Your task to perform on an android device: turn on javascript in the chrome app Image 0: 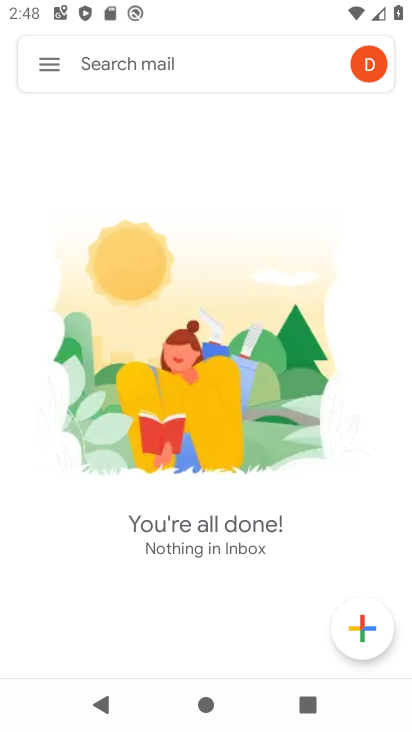
Step 0: press back button
Your task to perform on an android device: turn on javascript in the chrome app Image 1: 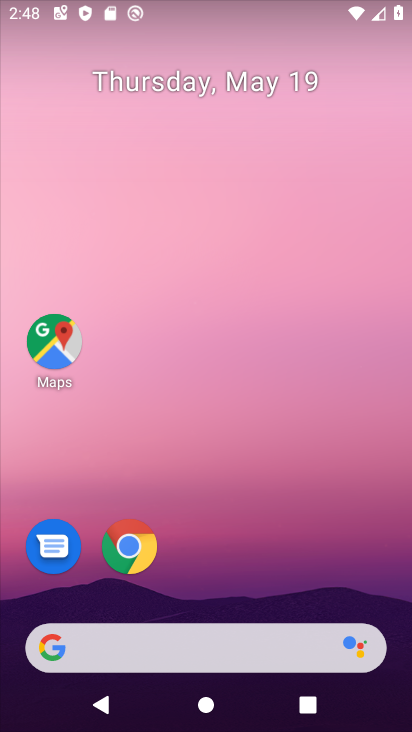
Step 1: click (129, 544)
Your task to perform on an android device: turn on javascript in the chrome app Image 2: 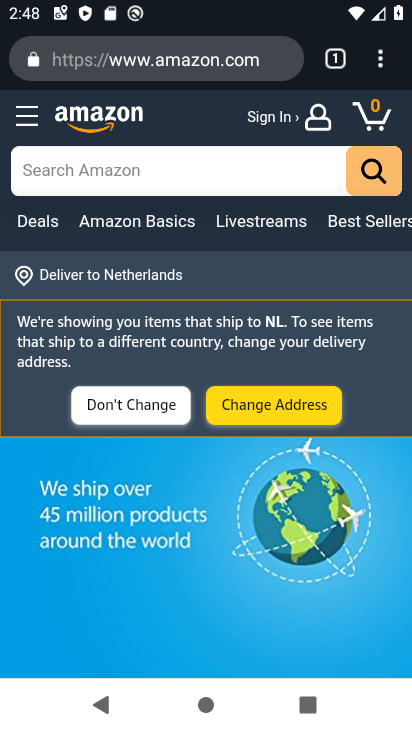
Step 2: click (383, 60)
Your task to perform on an android device: turn on javascript in the chrome app Image 3: 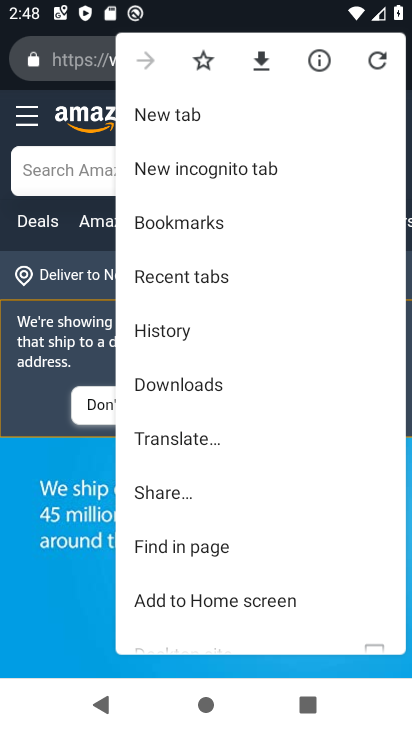
Step 3: drag from (209, 466) to (252, 399)
Your task to perform on an android device: turn on javascript in the chrome app Image 4: 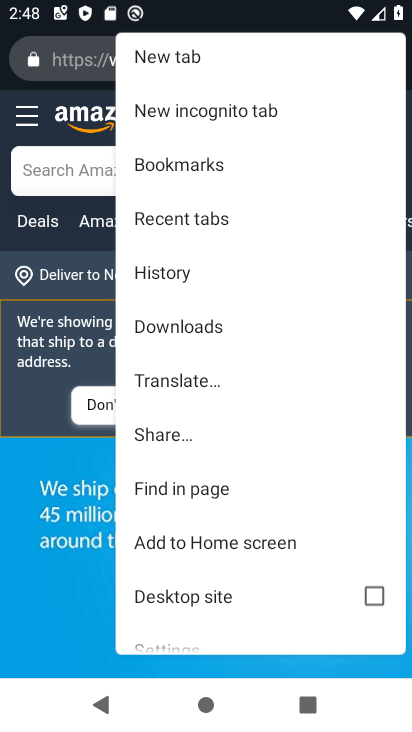
Step 4: drag from (215, 454) to (261, 385)
Your task to perform on an android device: turn on javascript in the chrome app Image 5: 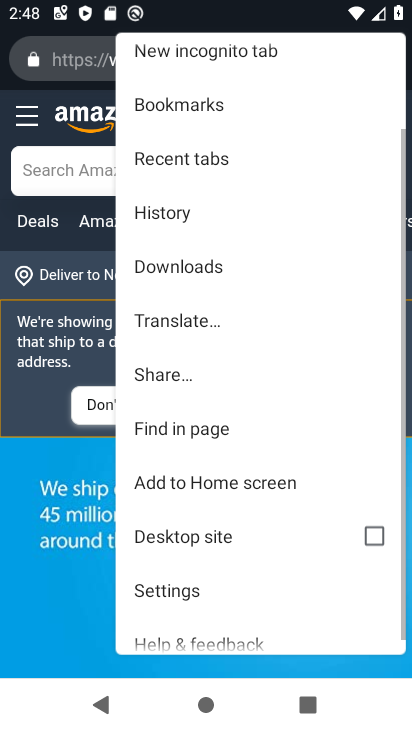
Step 5: drag from (213, 504) to (260, 430)
Your task to perform on an android device: turn on javascript in the chrome app Image 6: 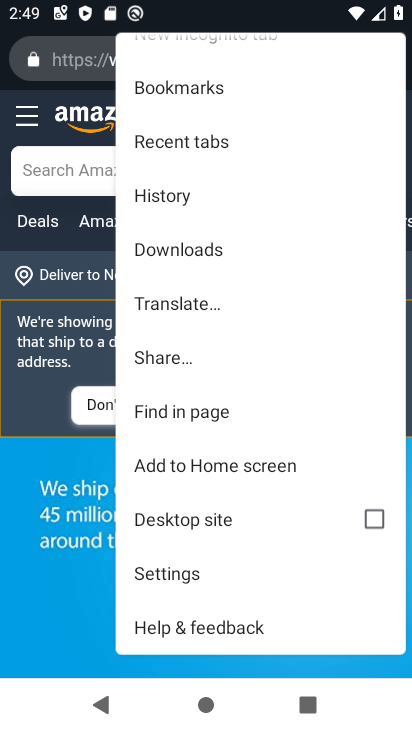
Step 6: click (186, 572)
Your task to perform on an android device: turn on javascript in the chrome app Image 7: 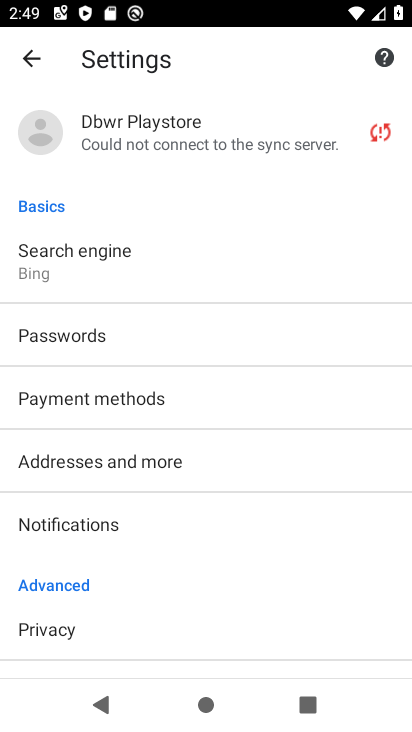
Step 7: drag from (132, 532) to (155, 459)
Your task to perform on an android device: turn on javascript in the chrome app Image 8: 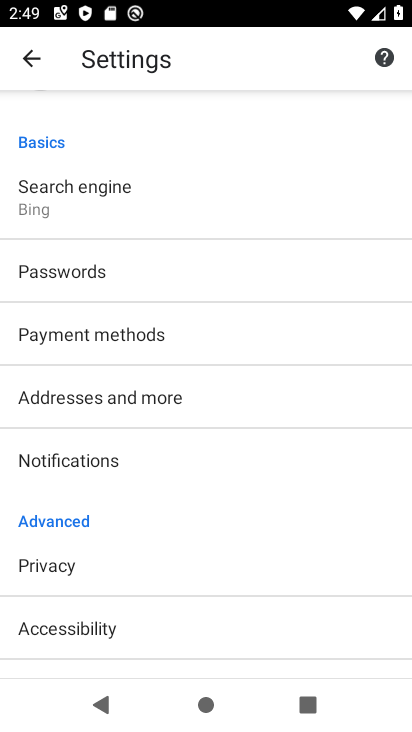
Step 8: drag from (117, 558) to (198, 460)
Your task to perform on an android device: turn on javascript in the chrome app Image 9: 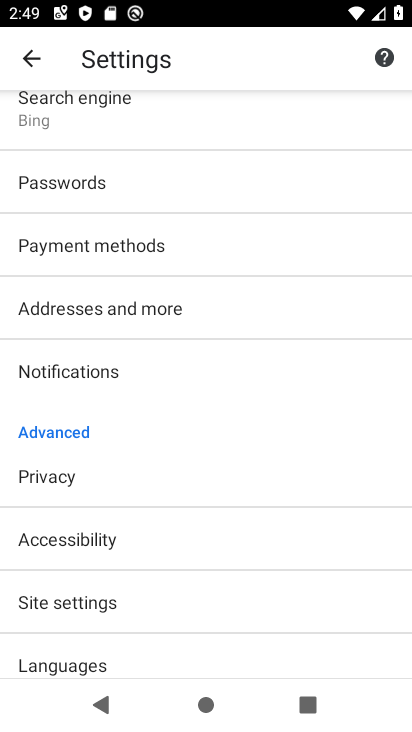
Step 9: click (94, 607)
Your task to perform on an android device: turn on javascript in the chrome app Image 10: 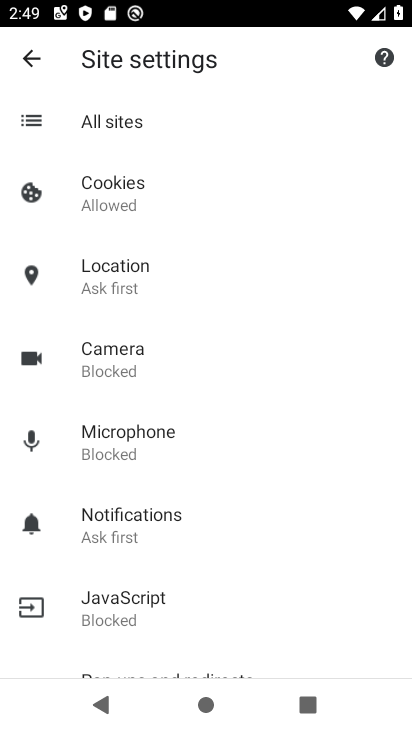
Step 10: click (127, 600)
Your task to perform on an android device: turn on javascript in the chrome app Image 11: 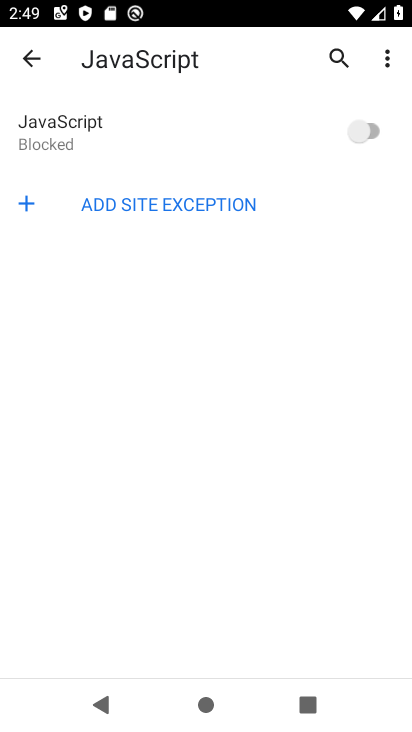
Step 11: click (348, 134)
Your task to perform on an android device: turn on javascript in the chrome app Image 12: 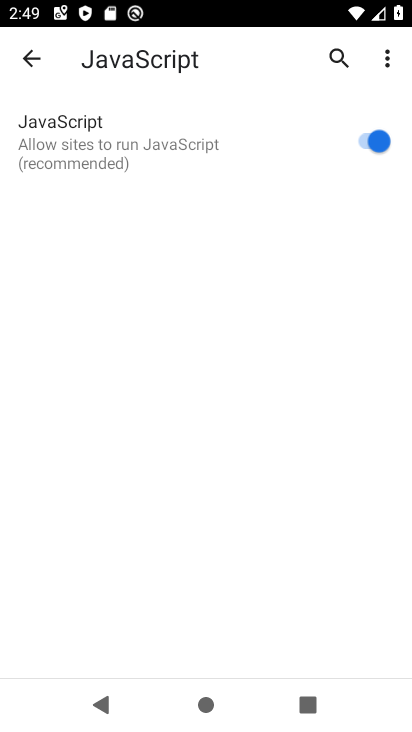
Step 12: task complete